Your task to perform on an android device: Open Yahoo.com Image 0: 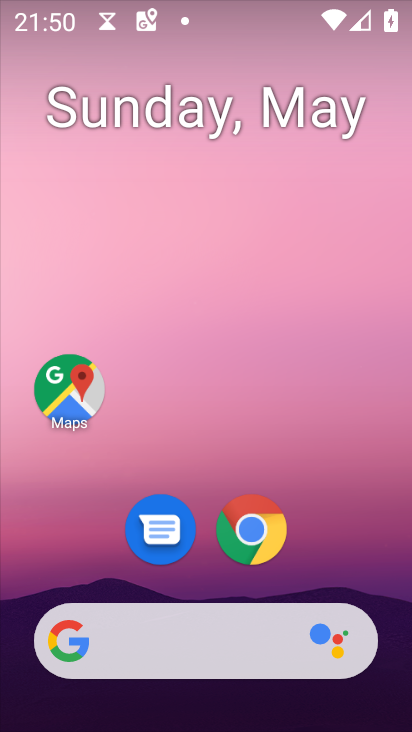
Step 0: click (263, 525)
Your task to perform on an android device: Open Yahoo.com Image 1: 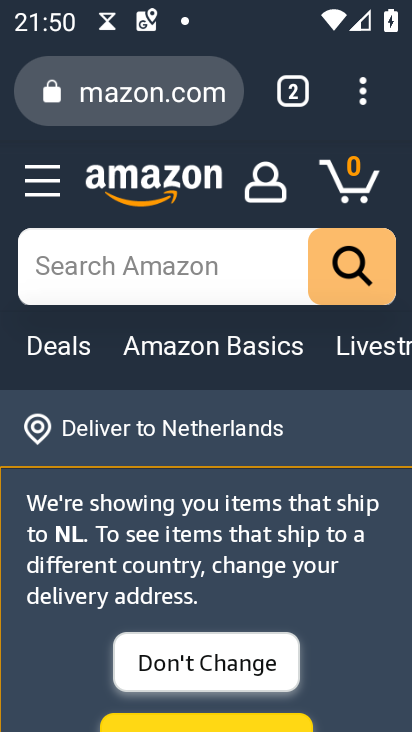
Step 1: click (119, 79)
Your task to perform on an android device: Open Yahoo.com Image 2: 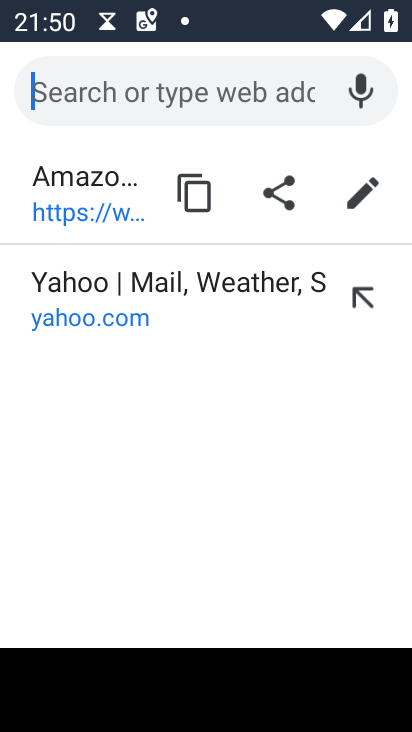
Step 2: type "Yahoo.com"
Your task to perform on an android device: Open Yahoo.com Image 3: 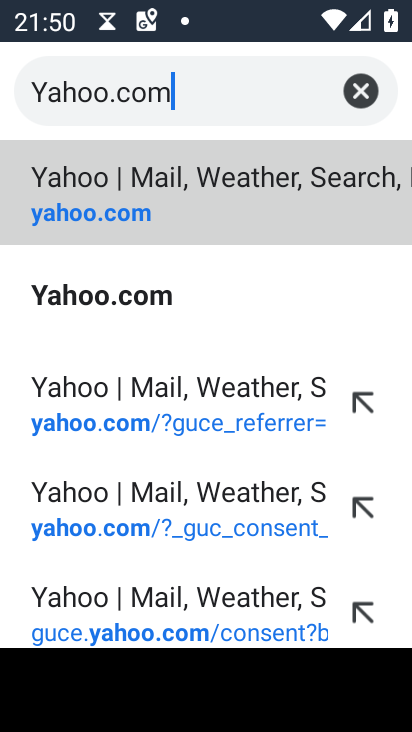
Step 3: click (68, 185)
Your task to perform on an android device: Open Yahoo.com Image 4: 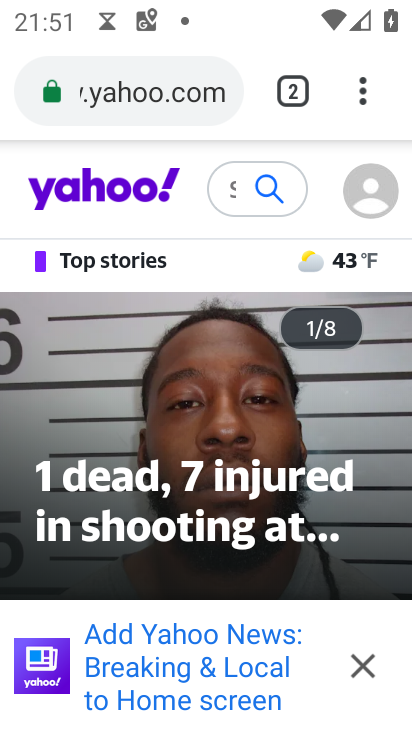
Step 4: task complete